Your task to perform on an android device: toggle priority inbox in the gmail app Image 0: 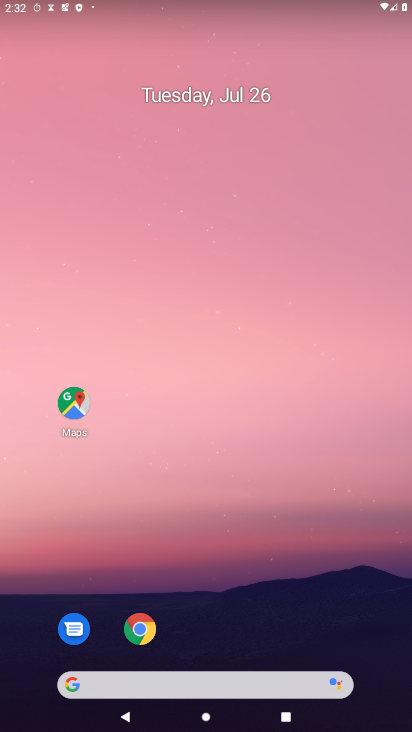
Step 0: drag from (342, 641) to (301, 64)
Your task to perform on an android device: toggle priority inbox in the gmail app Image 1: 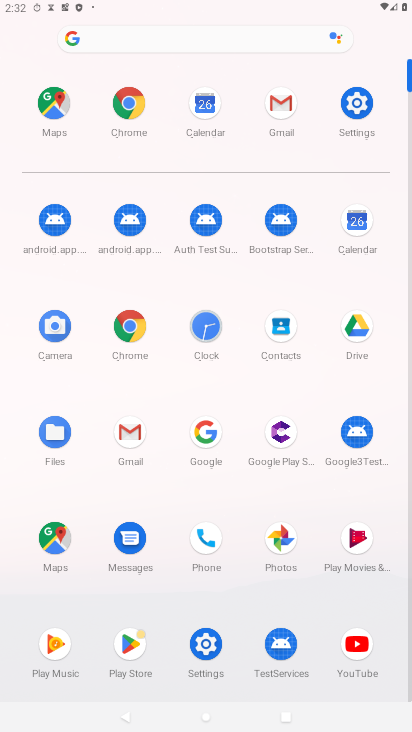
Step 1: click (125, 442)
Your task to perform on an android device: toggle priority inbox in the gmail app Image 2: 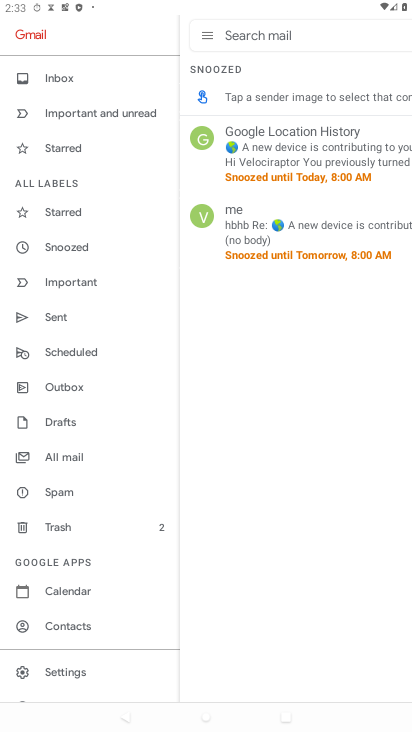
Step 2: click (72, 677)
Your task to perform on an android device: toggle priority inbox in the gmail app Image 3: 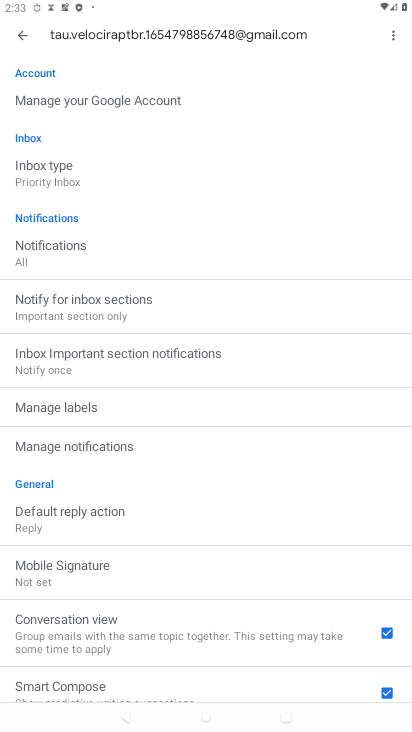
Step 3: click (83, 178)
Your task to perform on an android device: toggle priority inbox in the gmail app Image 4: 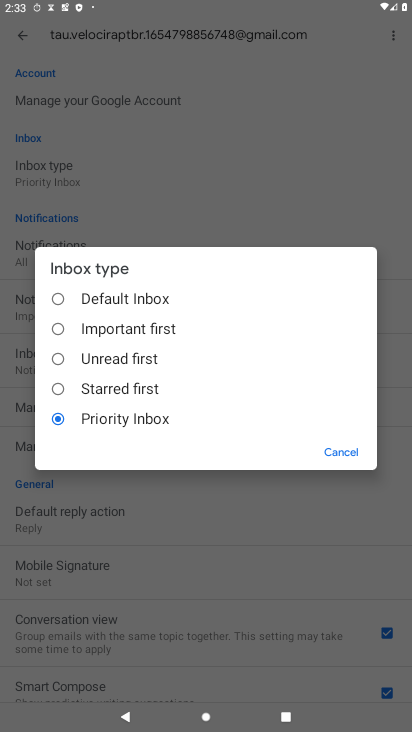
Step 4: click (65, 293)
Your task to perform on an android device: toggle priority inbox in the gmail app Image 5: 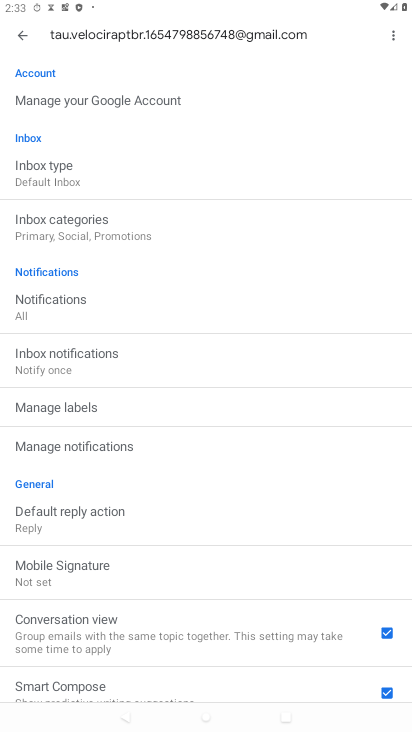
Step 5: task complete